Your task to perform on an android device: turn notification dots on Image 0: 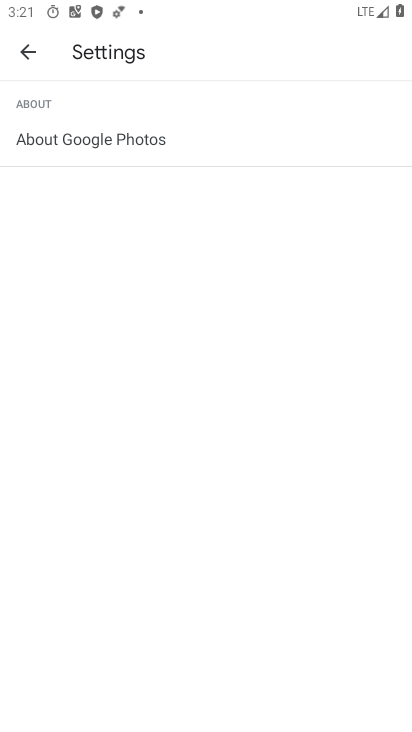
Step 0: press home button
Your task to perform on an android device: turn notification dots on Image 1: 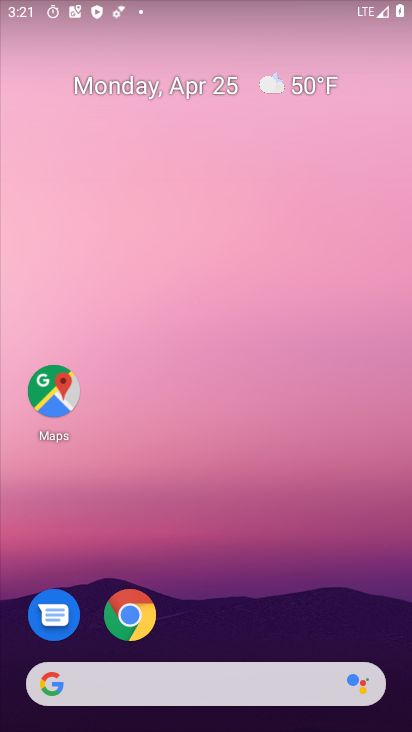
Step 1: drag from (213, 721) to (207, 180)
Your task to perform on an android device: turn notification dots on Image 2: 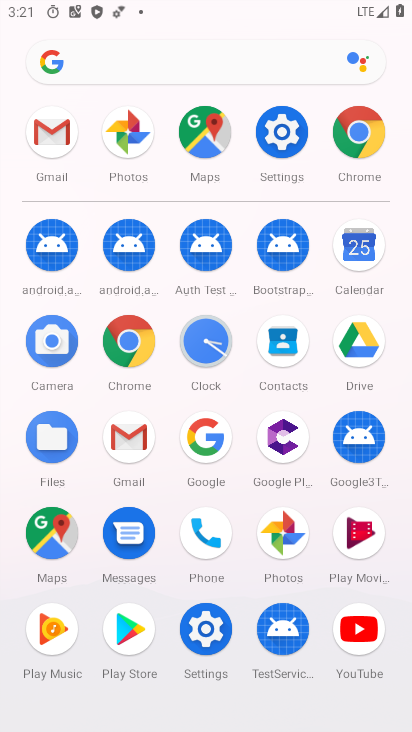
Step 2: click (279, 117)
Your task to perform on an android device: turn notification dots on Image 3: 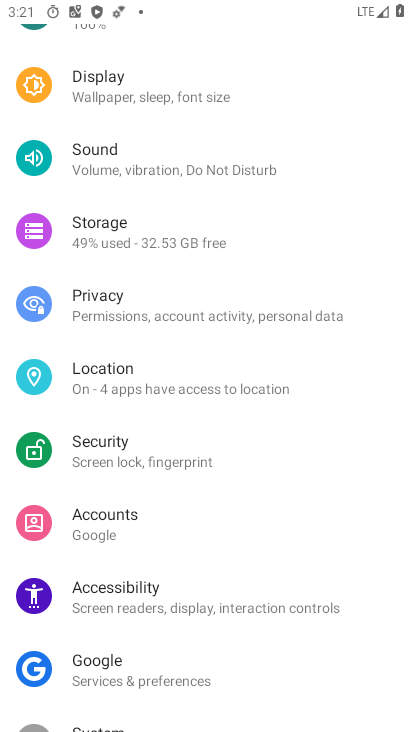
Step 3: drag from (183, 124) to (201, 474)
Your task to perform on an android device: turn notification dots on Image 4: 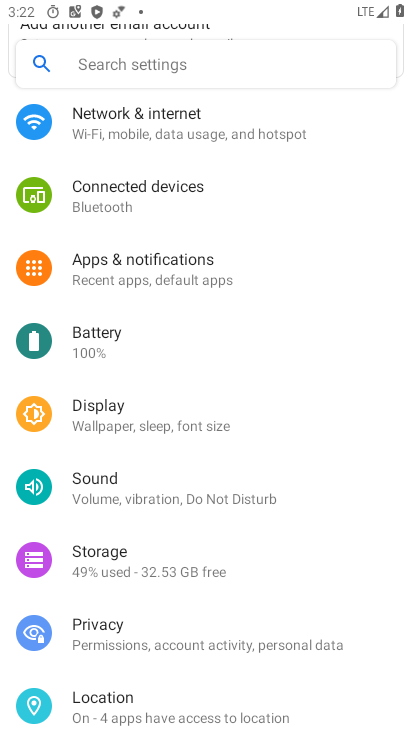
Step 4: click (151, 271)
Your task to perform on an android device: turn notification dots on Image 5: 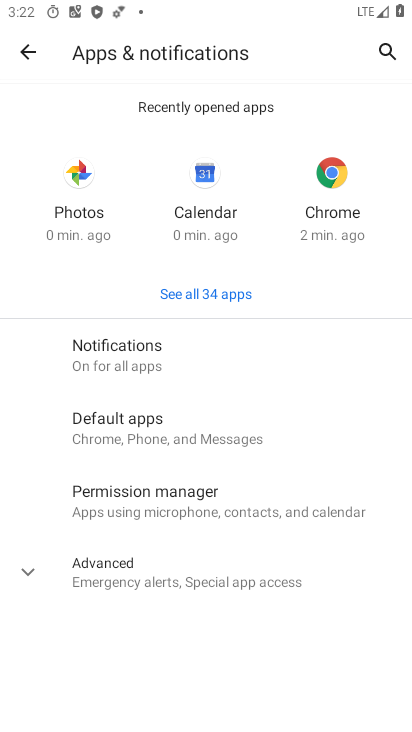
Step 5: click (120, 353)
Your task to perform on an android device: turn notification dots on Image 6: 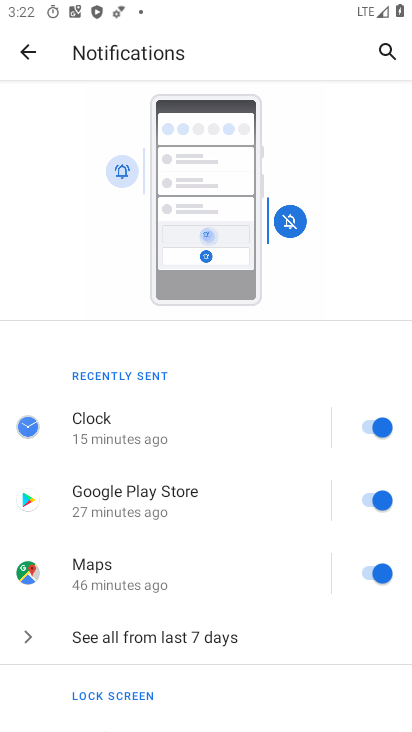
Step 6: drag from (258, 702) to (215, 334)
Your task to perform on an android device: turn notification dots on Image 7: 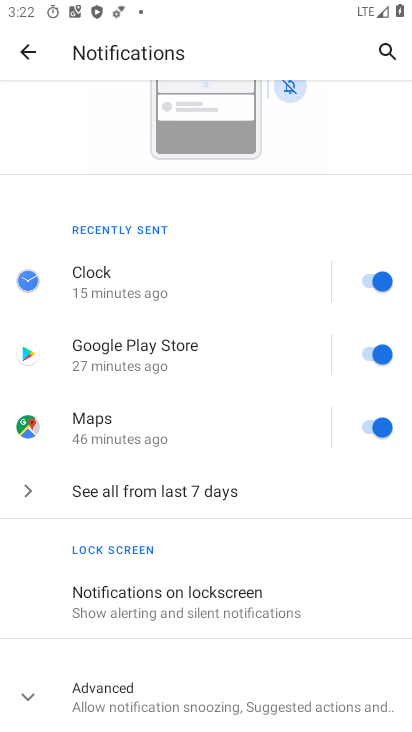
Step 7: click (193, 680)
Your task to perform on an android device: turn notification dots on Image 8: 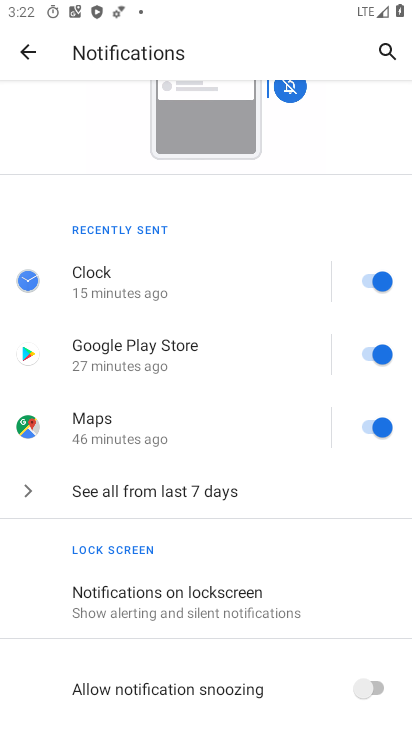
Step 8: drag from (276, 682) to (256, 349)
Your task to perform on an android device: turn notification dots on Image 9: 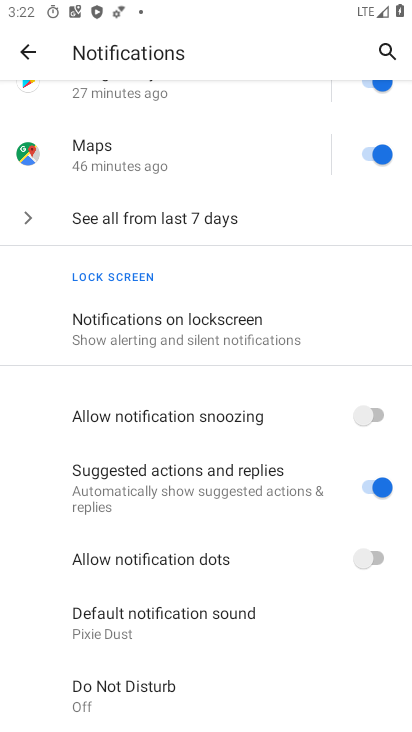
Step 9: click (377, 553)
Your task to perform on an android device: turn notification dots on Image 10: 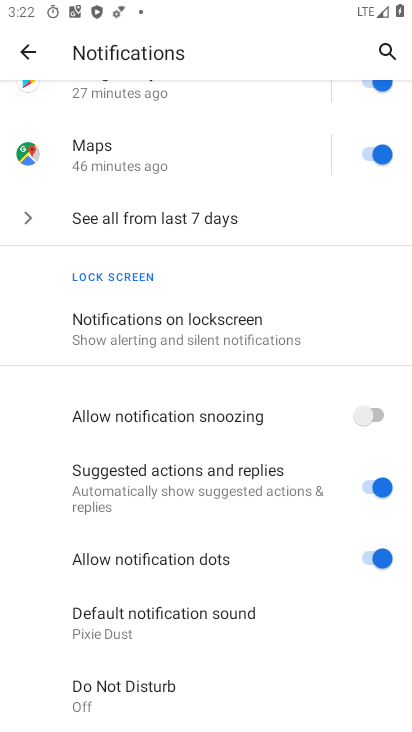
Step 10: task complete